Your task to perform on an android device: choose inbox layout in the gmail app Image 0: 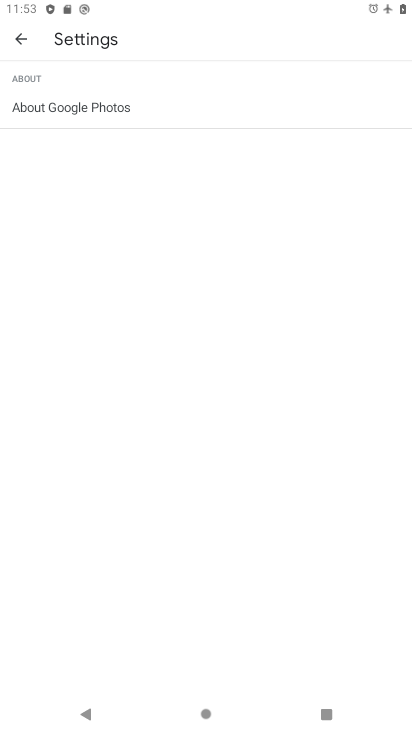
Step 0: press home button
Your task to perform on an android device: choose inbox layout in the gmail app Image 1: 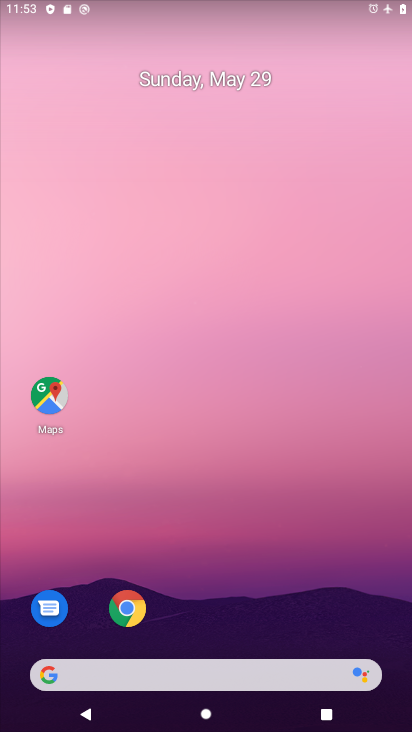
Step 1: drag from (213, 655) to (210, 86)
Your task to perform on an android device: choose inbox layout in the gmail app Image 2: 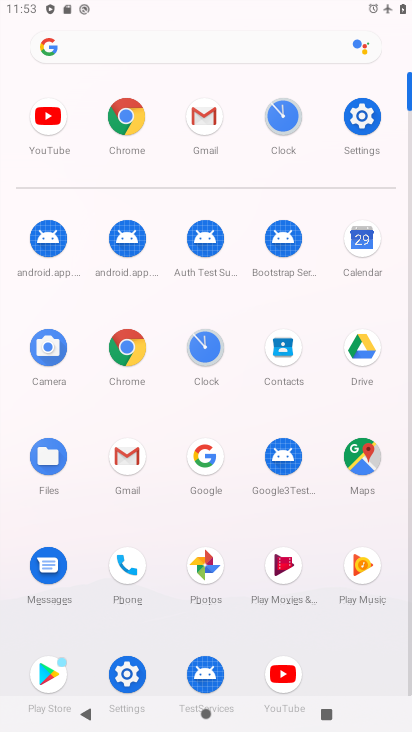
Step 2: click (109, 450)
Your task to perform on an android device: choose inbox layout in the gmail app Image 3: 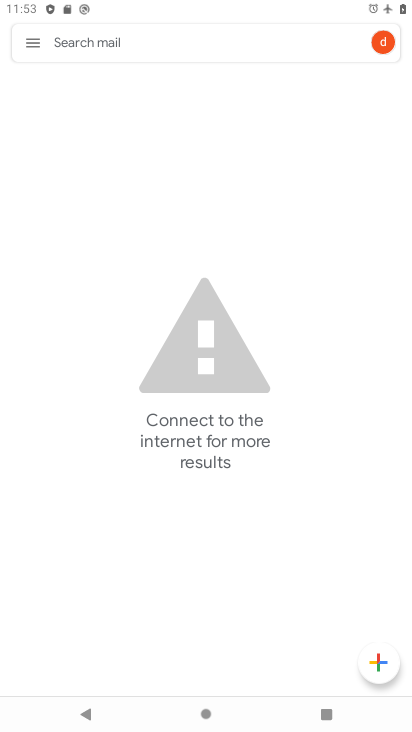
Step 3: click (32, 44)
Your task to perform on an android device: choose inbox layout in the gmail app Image 4: 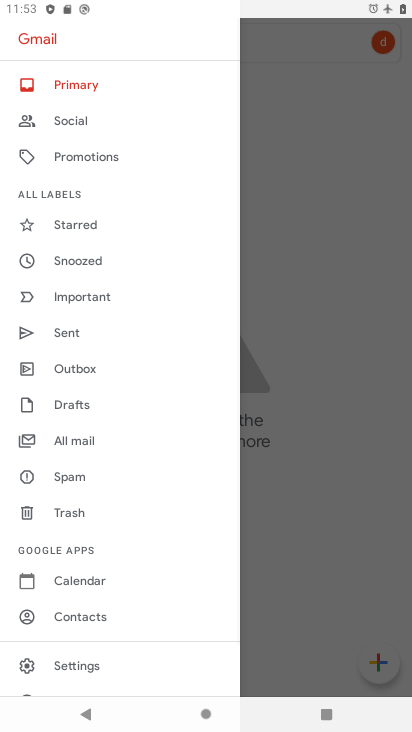
Step 4: click (78, 667)
Your task to perform on an android device: choose inbox layout in the gmail app Image 5: 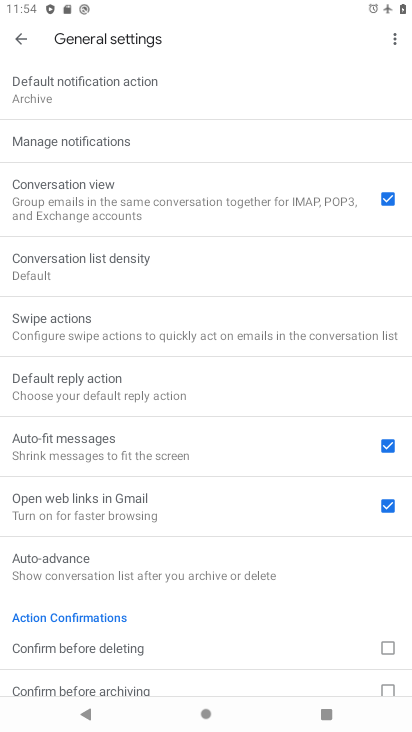
Step 5: drag from (99, 150) to (93, 350)
Your task to perform on an android device: choose inbox layout in the gmail app Image 6: 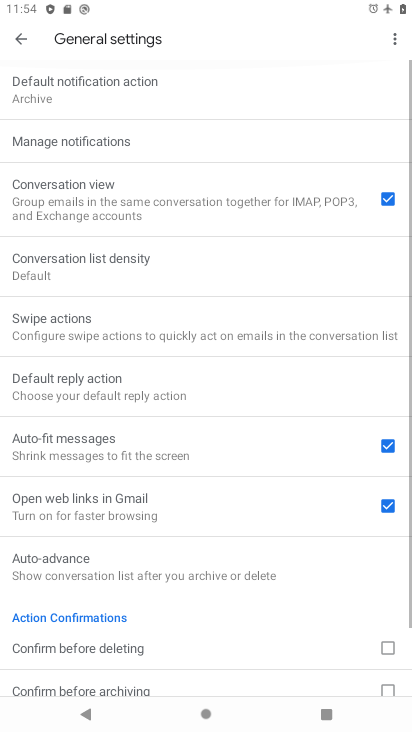
Step 6: click (19, 38)
Your task to perform on an android device: choose inbox layout in the gmail app Image 7: 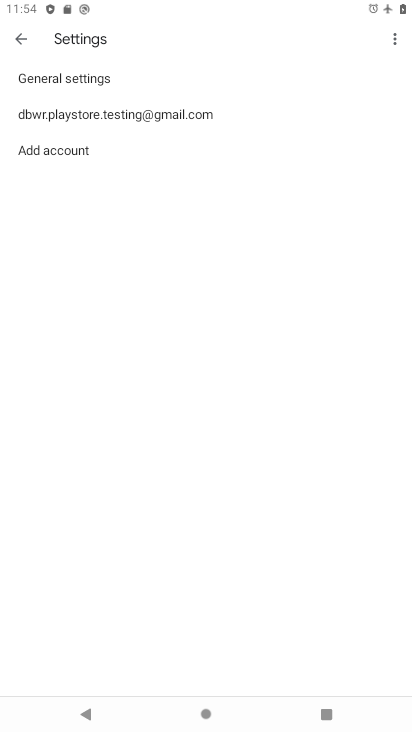
Step 7: click (56, 118)
Your task to perform on an android device: choose inbox layout in the gmail app Image 8: 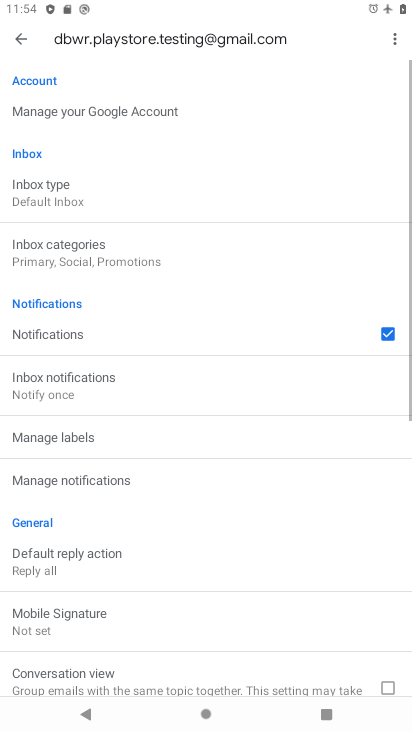
Step 8: click (56, 181)
Your task to perform on an android device: choose inbox layout in the gmail app Image 9: 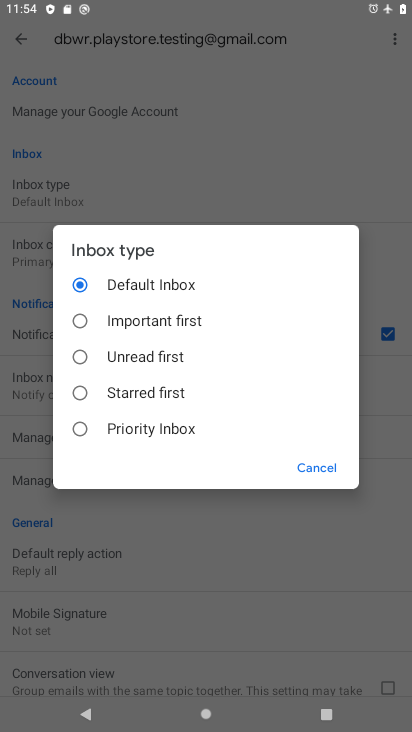
Step 9: click (144, 419)
Your task to perform on an android device: choose inbox layout in the gmail app Image 10: 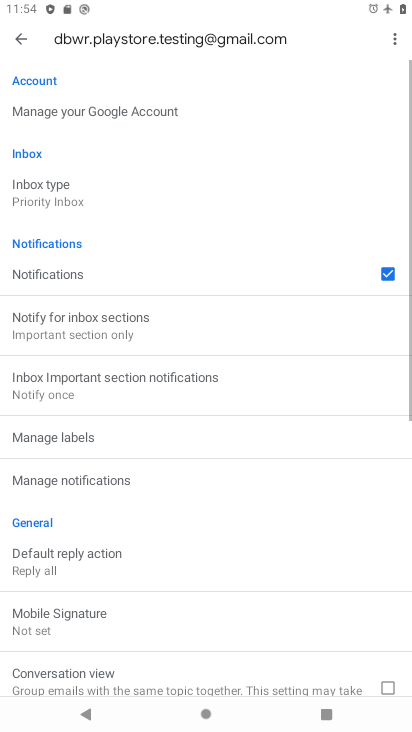
Step 10: click (20, 42)
Your task to perform on an android device: choose inbox layout in the gmail app Image 11: 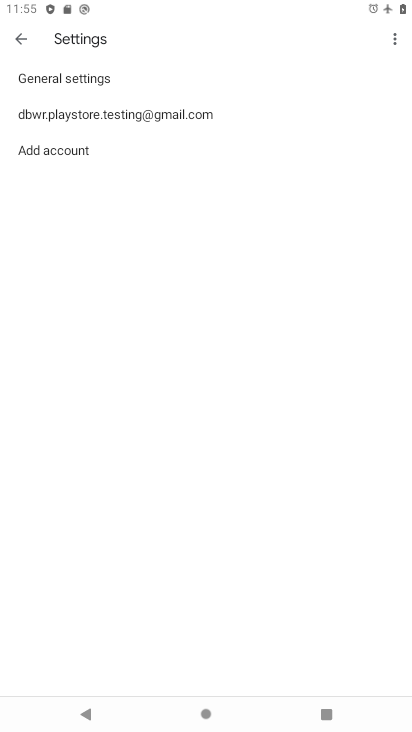
Step 11: task complete